Your task to perform on an android device: Open the map Image 0: 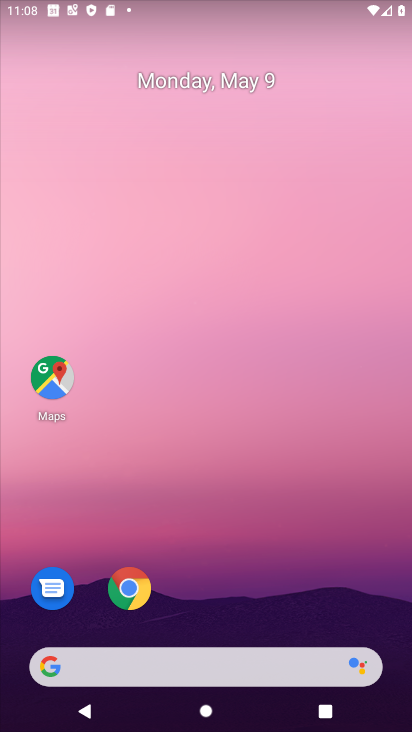
Step 0: drag from (196, 640) to (201, 27)
Your task to perform on an android device: Open the map Image 1: 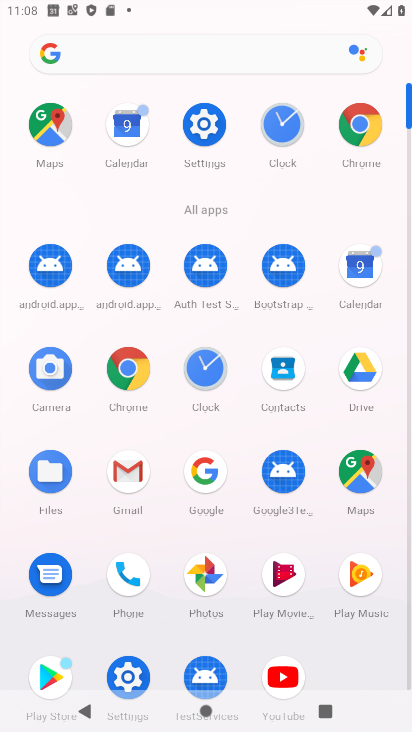
Step 1: click (354, 467)
Your task to perform on an android device: Open the map Image 2: 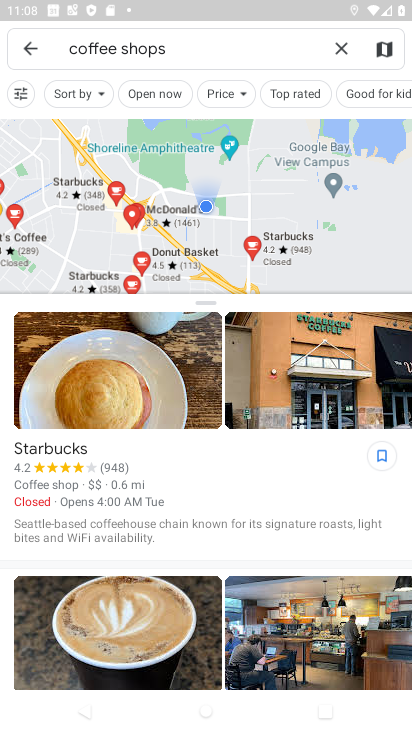
Step 2: task complete